Your task to perform on an android device: change the clock style Image 0: 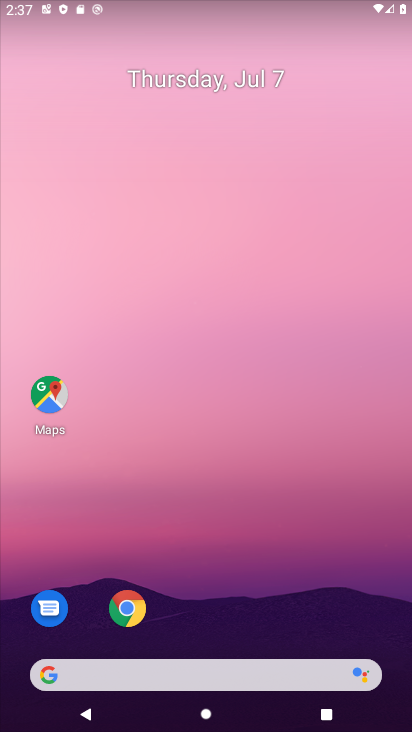
Step 0: drag from (393, 678) to (370, 72)
Your task to perform on an android device: change the clock style Image 1: 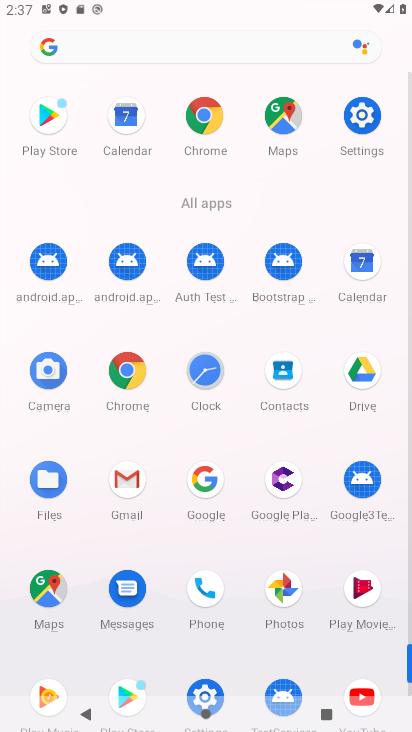
Step 1: click (205, 370)
Your task to perform on an android device: change the clock style Image 2: 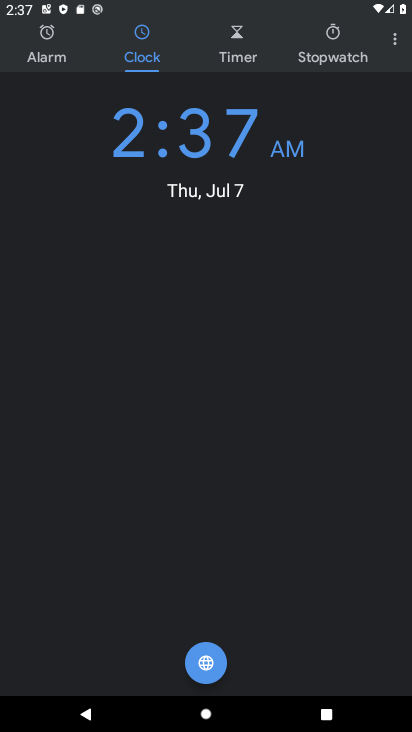
Step 2: click (394, 40)
Your task to perform on an android device: change the clock style Image 3: 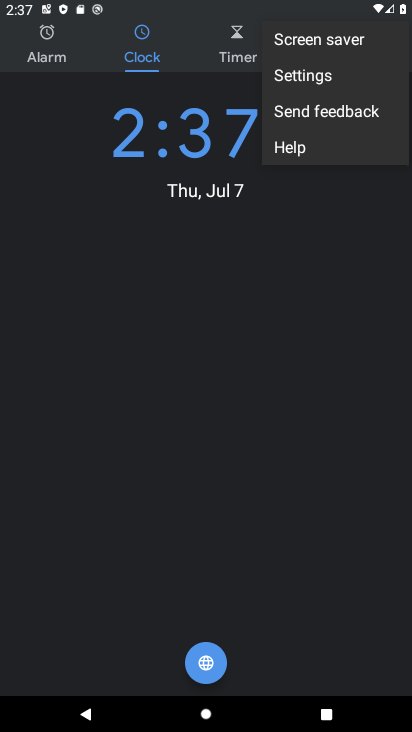
Step 3: click (302, 70)
Your task to perform on an android device: change the clock style Image 4: 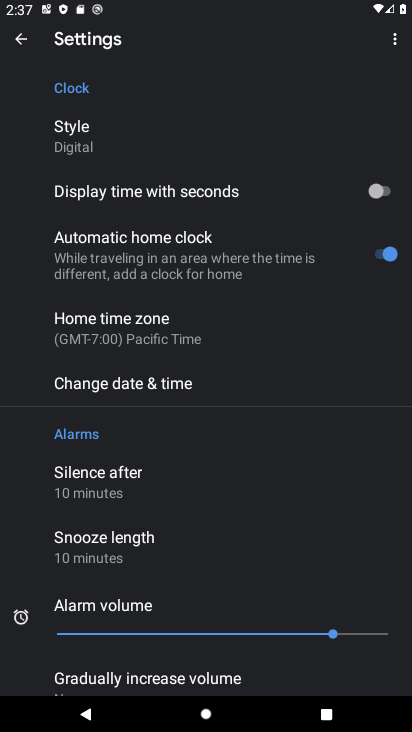
Step 4: click (88, 140)
Your task to perform on an android device: change the clock style Image 5: 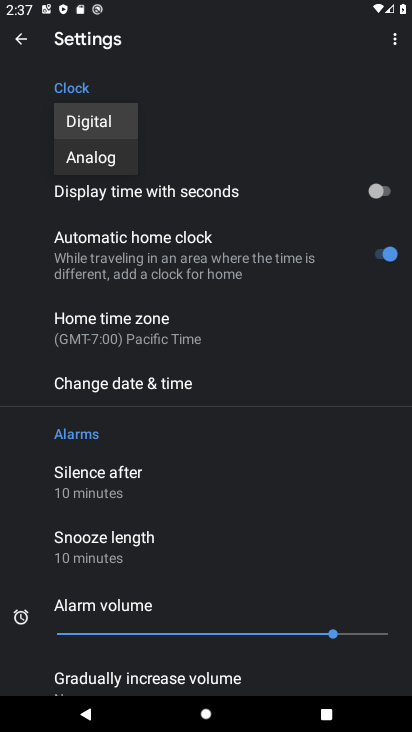
Step 5: click (95, 157)
Your task to perform on an android device: change the clock style Image 6: 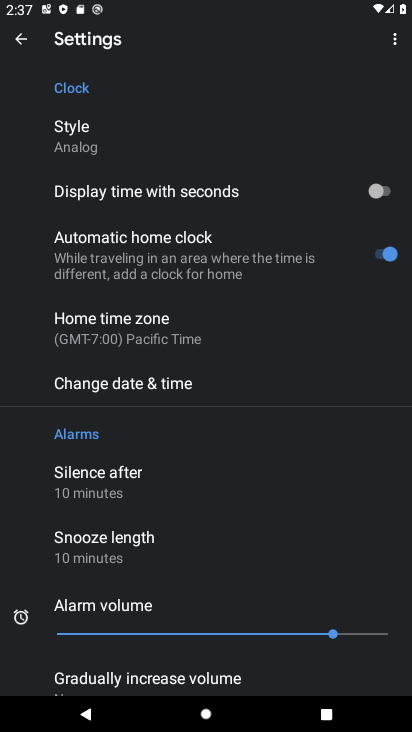
Step 6: task complete